Your task to perform on an android device: Go to Maps Image 0: 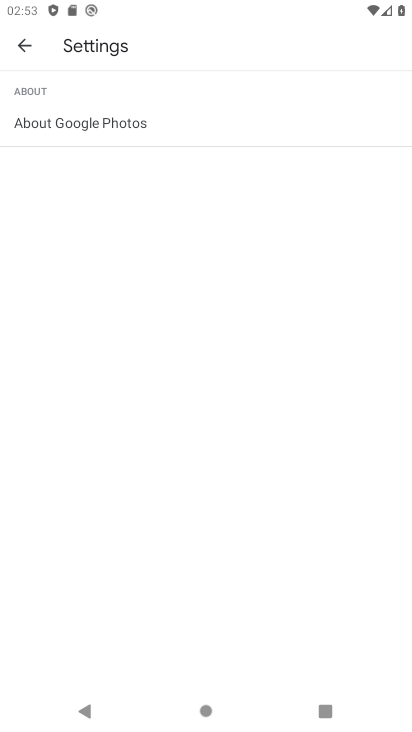
Step 0: press home button
Your task to perform on an android device: Go to Maps Image 1: 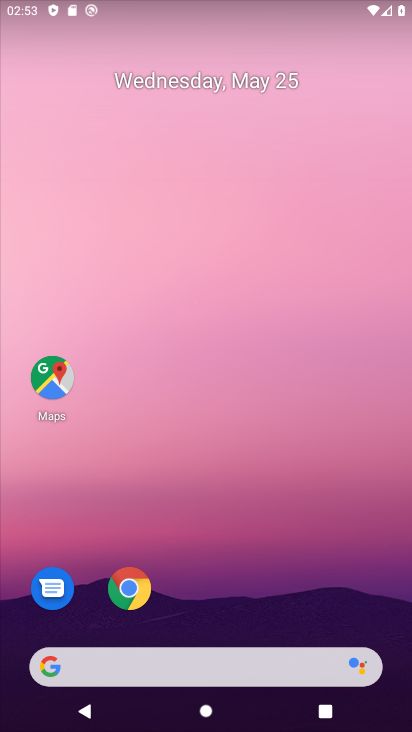
Step 1: click (71, 401)
Your task to perform on an android device: Go to Maps Image 2: 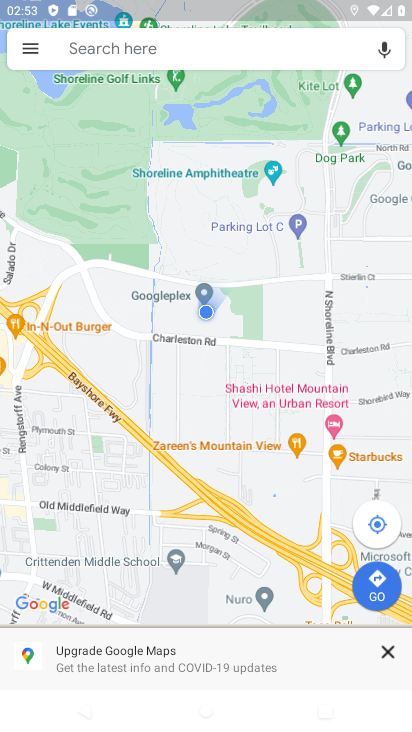
Step 2: task complete